Your task to perform on an android device: turn smart compose on in the gmail app Image 0: 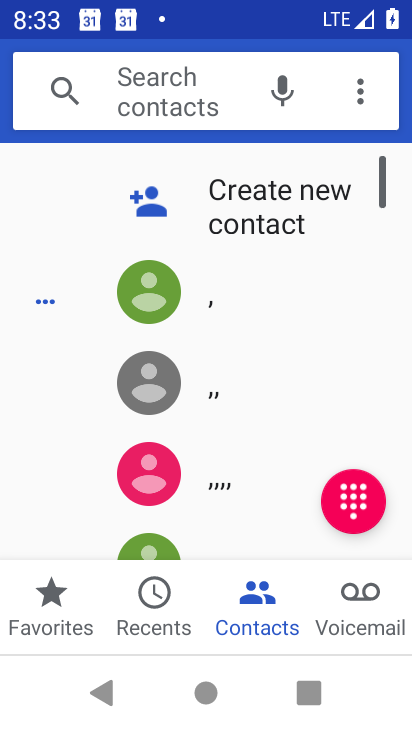
Step 0: press home button
Your task to perform on an android device: turn smart compose on in the gmail app Image 1: 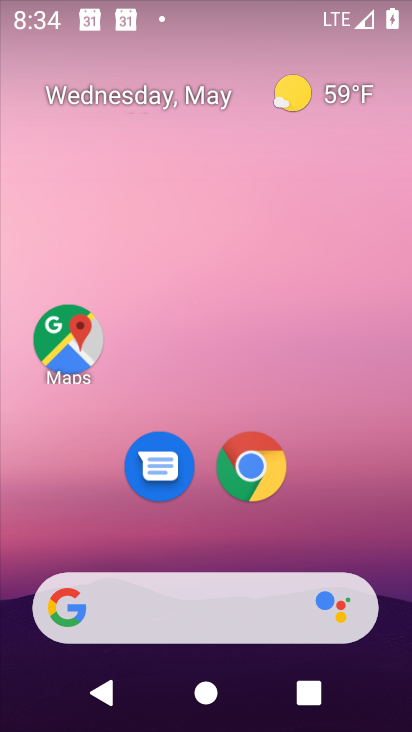
Step 1: drag from (321, 554) to (270, 201)
Your task to perform on an android device: turn smart compose on in the gmail app Image 2: 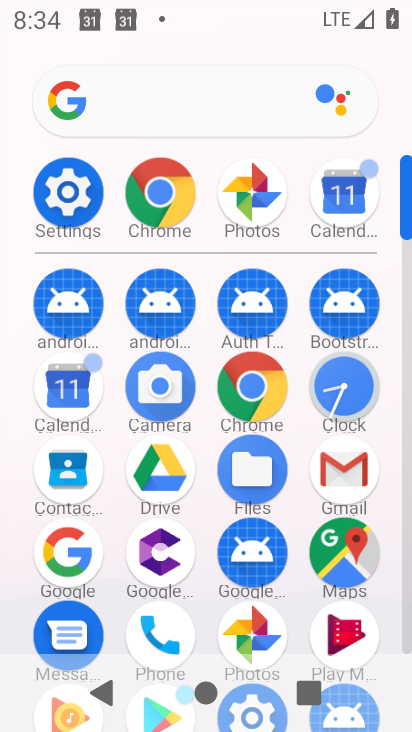
Step 2: click (324, 465)
Your task to perform on an android device: turn smart compose on in the gmail app Image 3: 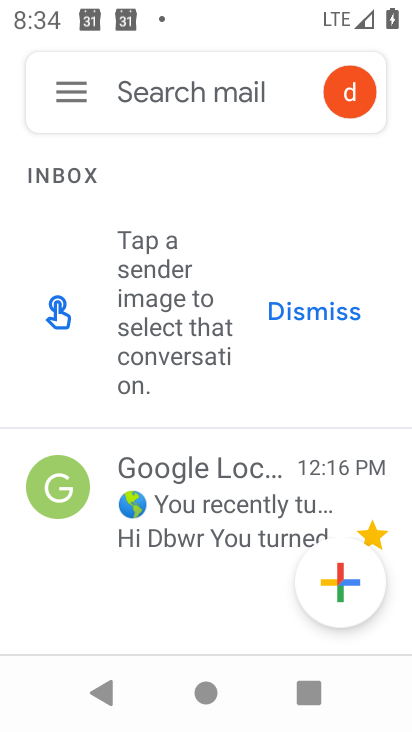
Step 3: click (65, 86)
Your task to perform on an android device: turn smart compose on in the gmail app Image 4: 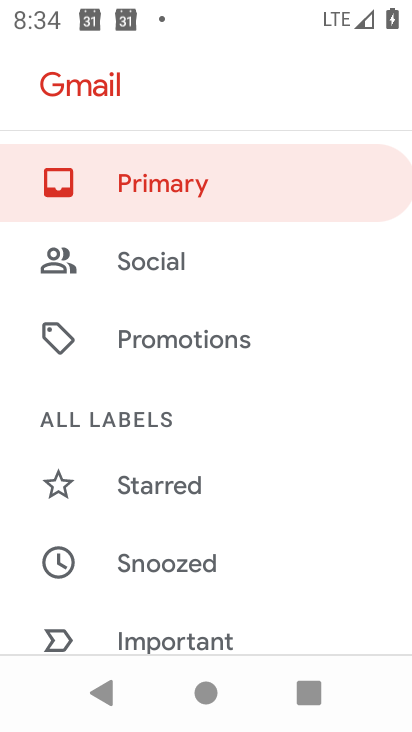
Step 4: drag from (260, 590) to (257, 207)
Your task to perform on an android device: turn smart compose on in the gmail app Image 5: 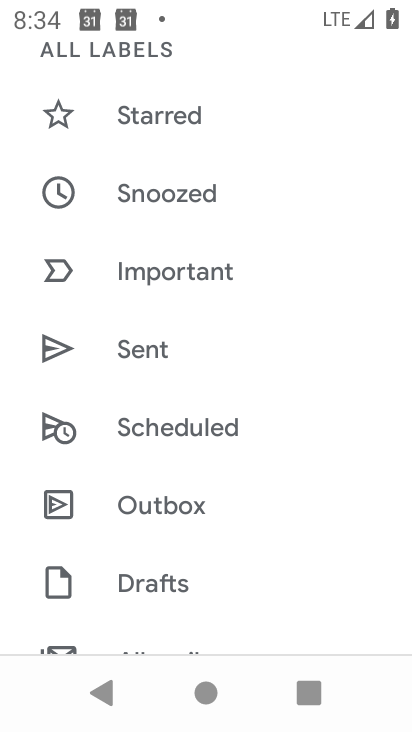
Step 5: drag from (217, 575) to (207, 207)
Your task to perform on an android device: turn smart compose on in the gmail app Image 6: 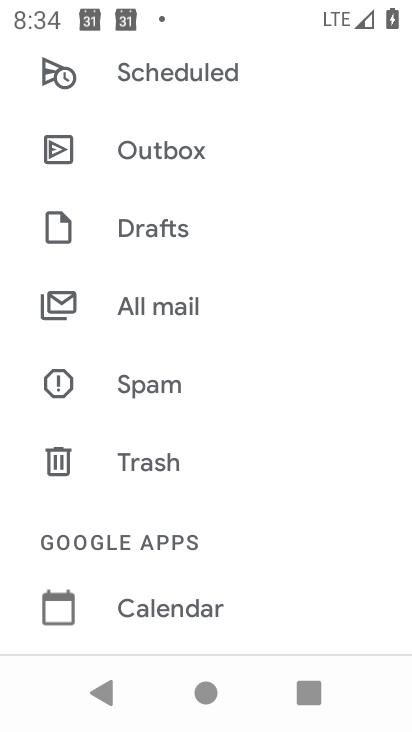
Step 6: drag from (191, 544) to (217, 169)
Your task to perform on an android device: turn smart compose on in the gmail app Image 7: 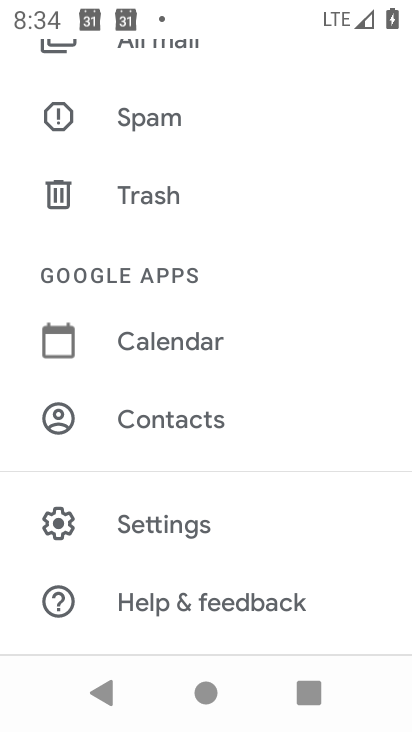
Step 7: click (181, 538)
Your task to perform on an android device: turn smart compose on in the gmail app Image 8: 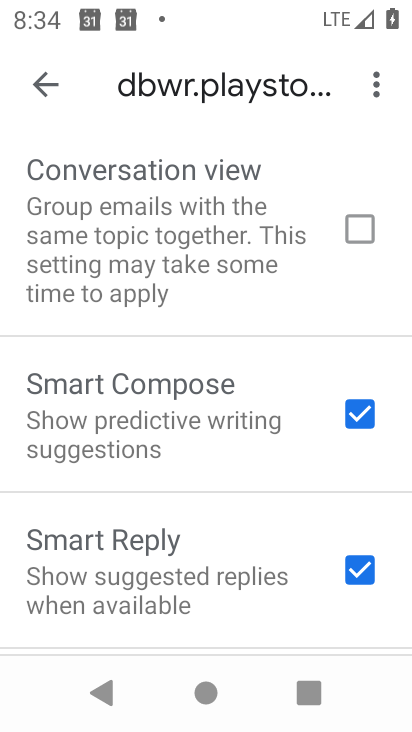
Step 8: task complete